Your task to perform on an android device: Open notification settings Image 0: 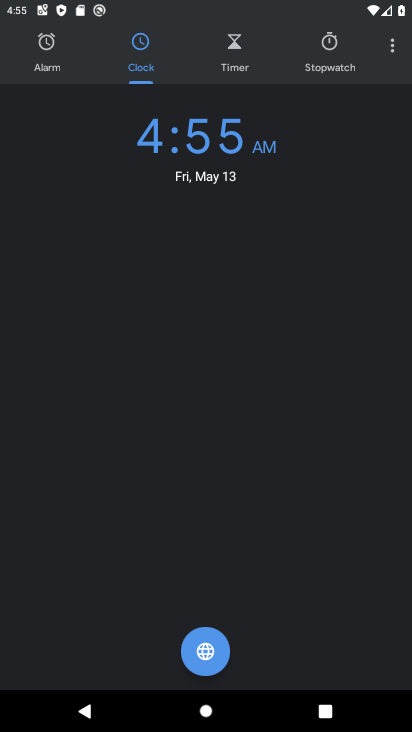
Step 0: press back button
Your task to perform on an android device: Open notification settings Image 1: 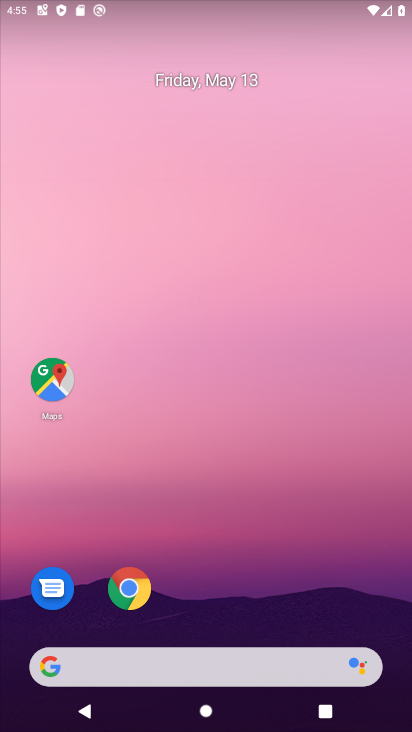
Step 1: drag from (201, 643) to (281, 225)
Your task to perform on an android device: Open notification settings Image 2: 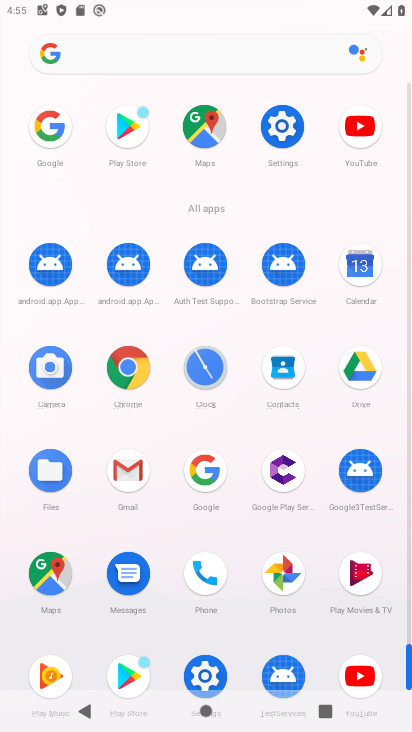
Step 2: drag from (203, 647) to (278, 414)
Your task to perform on an android device: Open notification settings Image 3: 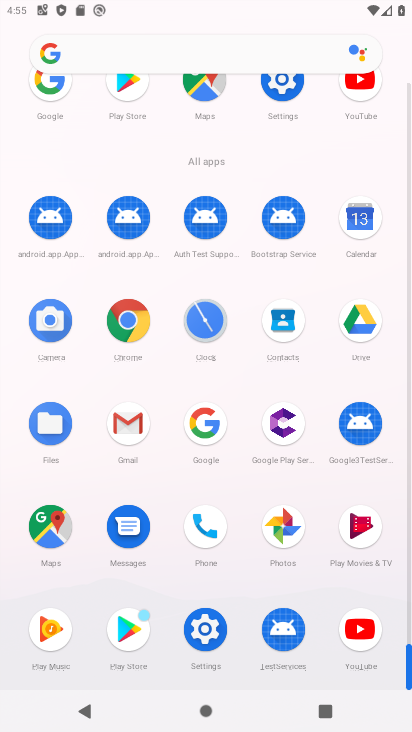
Step 3: click (208, 627)
Your task to perform on an android device: Open notification settings Image 4: 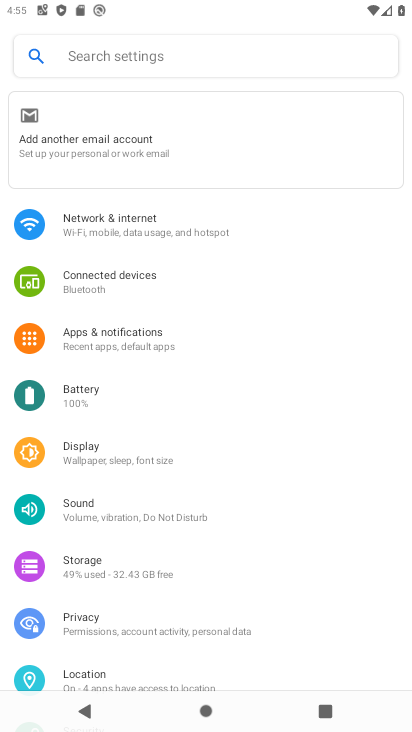
Step 4: click (142, 351)
Your task to perform on an android device: Open notification settings Image 5: 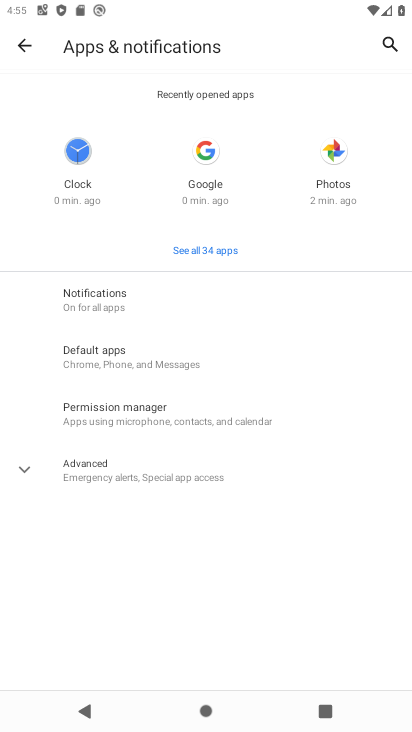
Step 5: click (142, 296)
Your task to perform on an android device: Open notification settings Image 6: 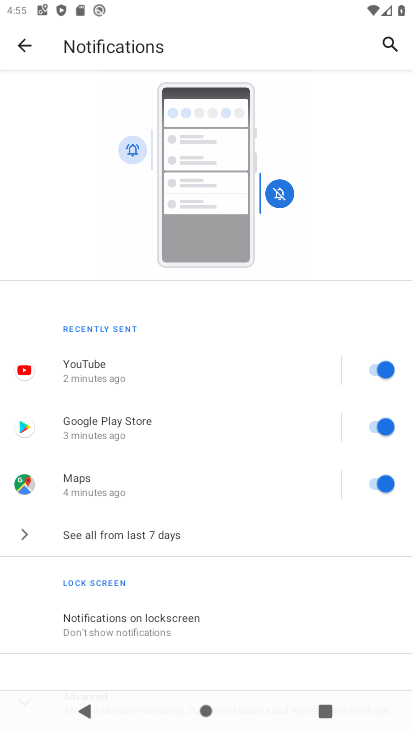
Step 6: task complete